Your task to perform on an android device: Show the shopping cart on ebay.com. Search for usb-b on ebay.com, select the first entry, add it to the cart, then select checkout. Image 0: 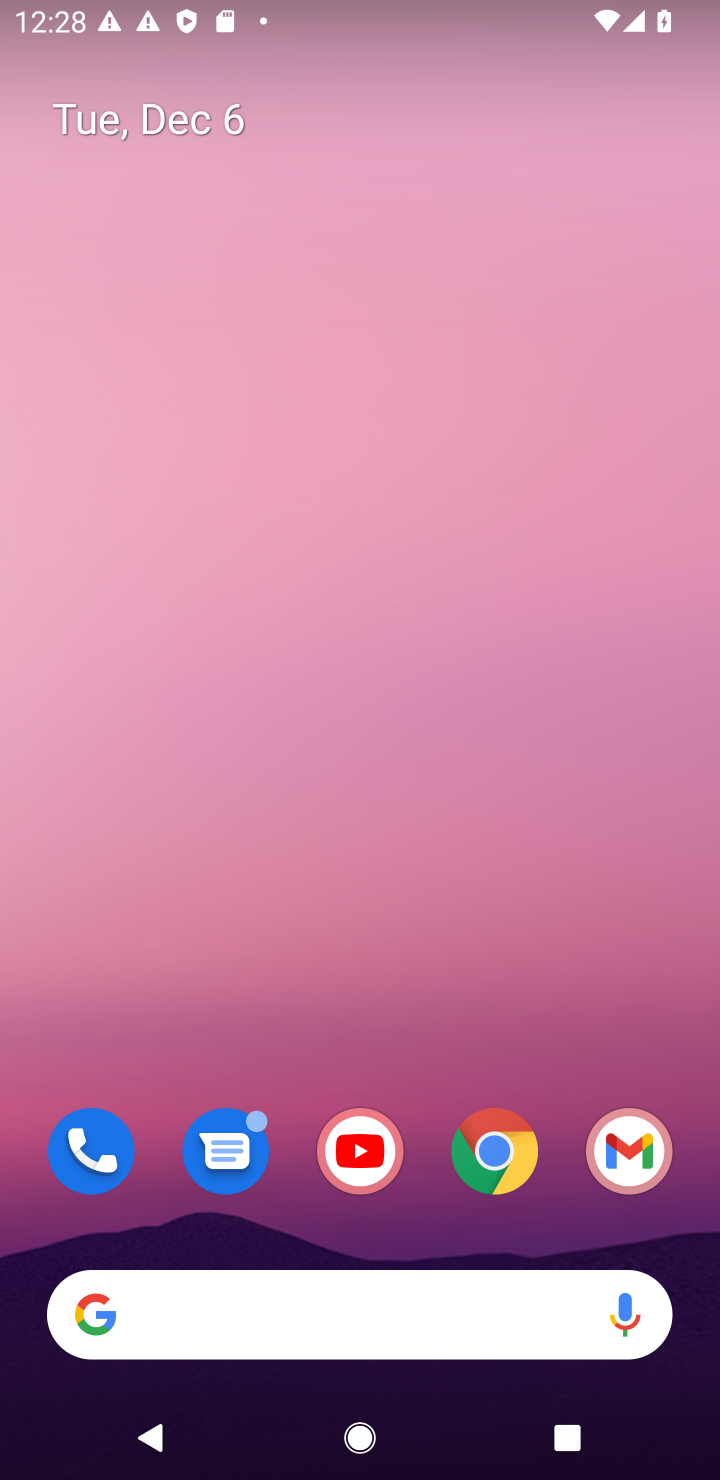
Step 0: click (494, 1162)
Your task to perform on an android device: Show the shopping cart on ebay.com. Search for usb-b on ebay.com, select the first entry, add it to the cart, then select checkout. Image 1: 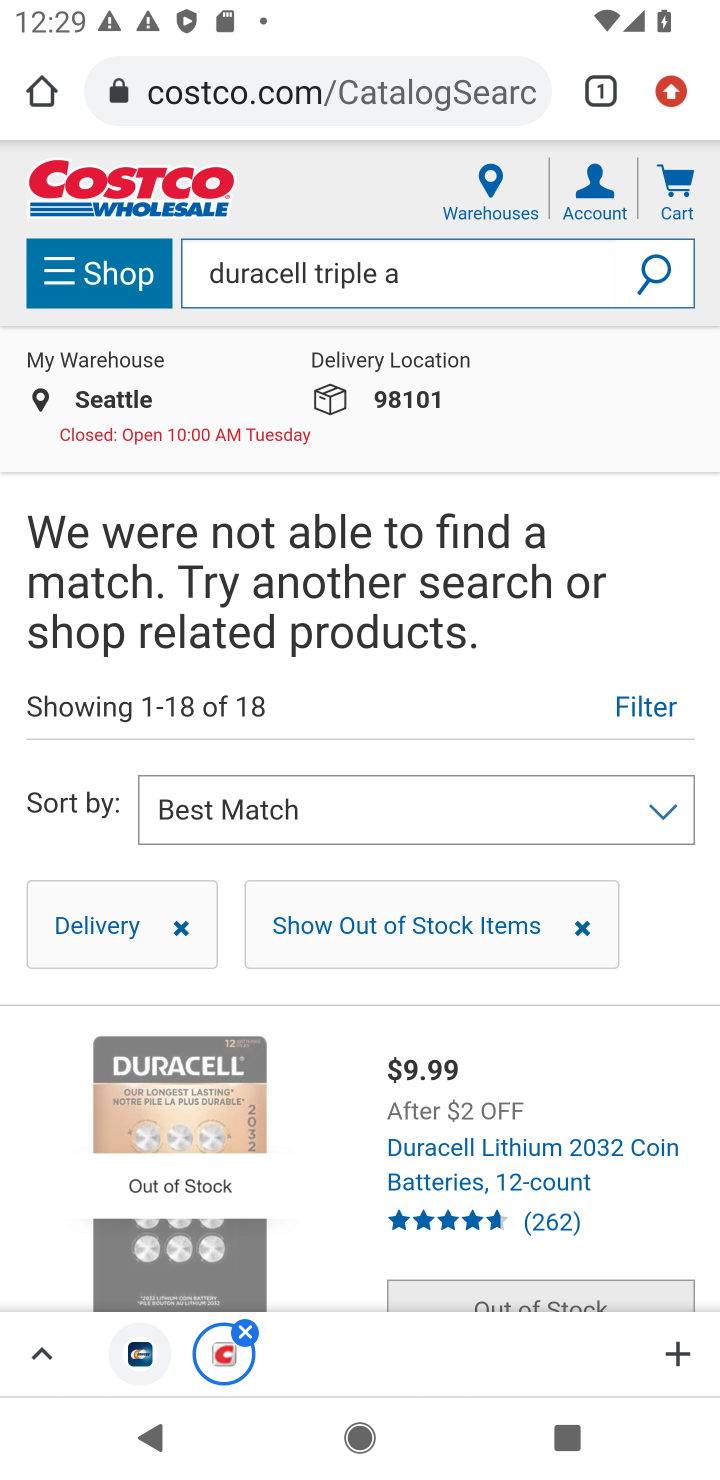
Step 1: click (256, 88)
Your task to perform on an android device: Show the shopping cart on ebay.com. Search for usb-b on ebay.com, select the first entry, add it to the cart, then select checkout. Image 2: 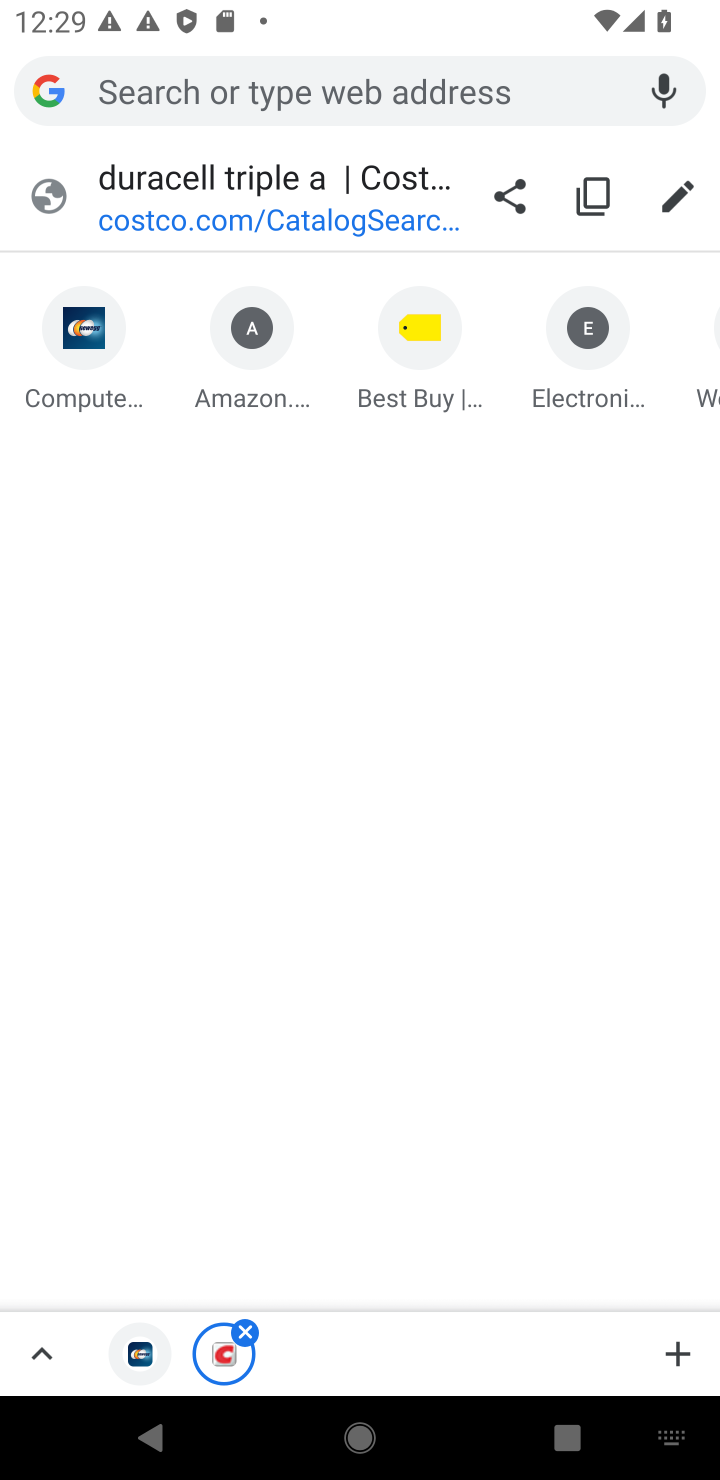
Step 2: type "ebay.com"
Your task to perform on an android device: Show the shopping cart on ebay.com. Search for usb-b on ebay.com, select the first entry, add it to the cart, then select checkout. Image 3: 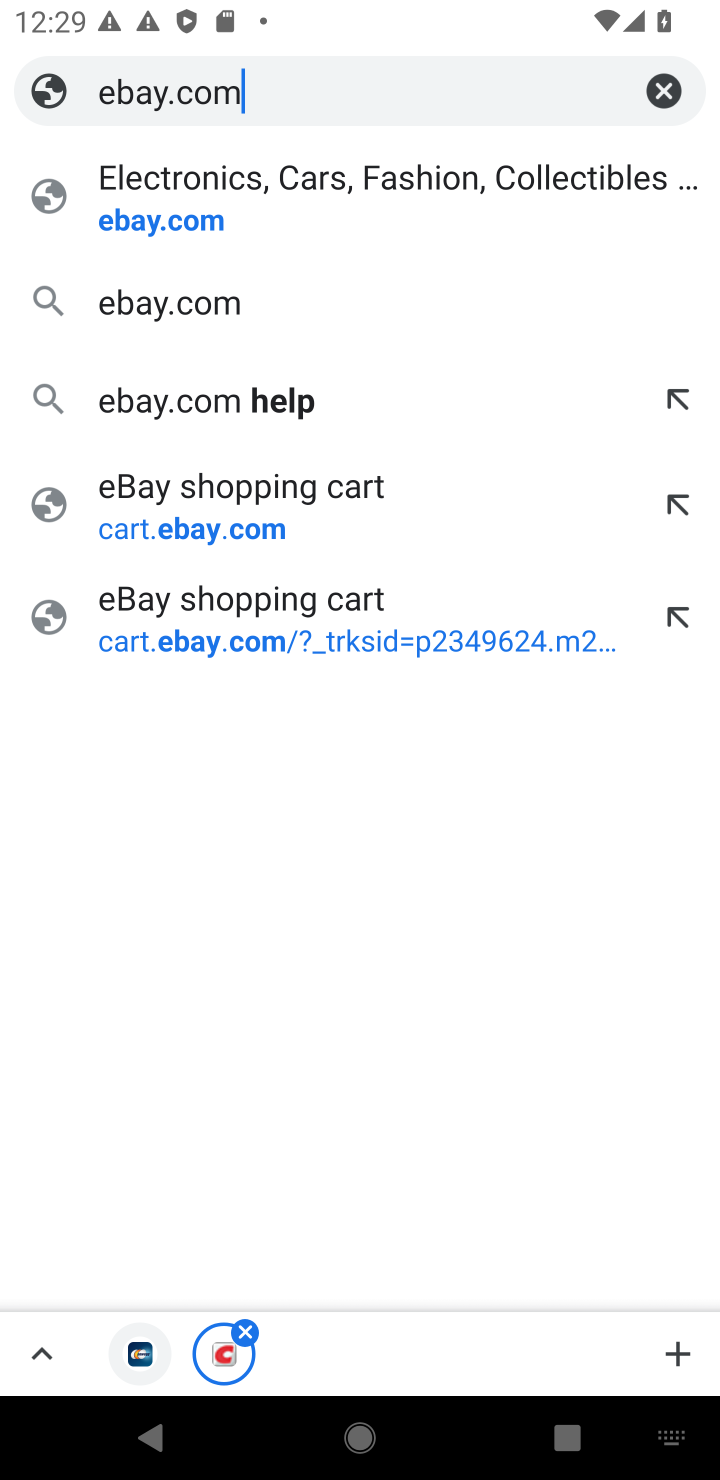
Step 3: click (161, 222)
Your task to perform on an android device: Show the shopping cart on ebay.com. Search for usb-b on ebay.com, select the first entry, add it to the cart, then select checkout. Image 4: 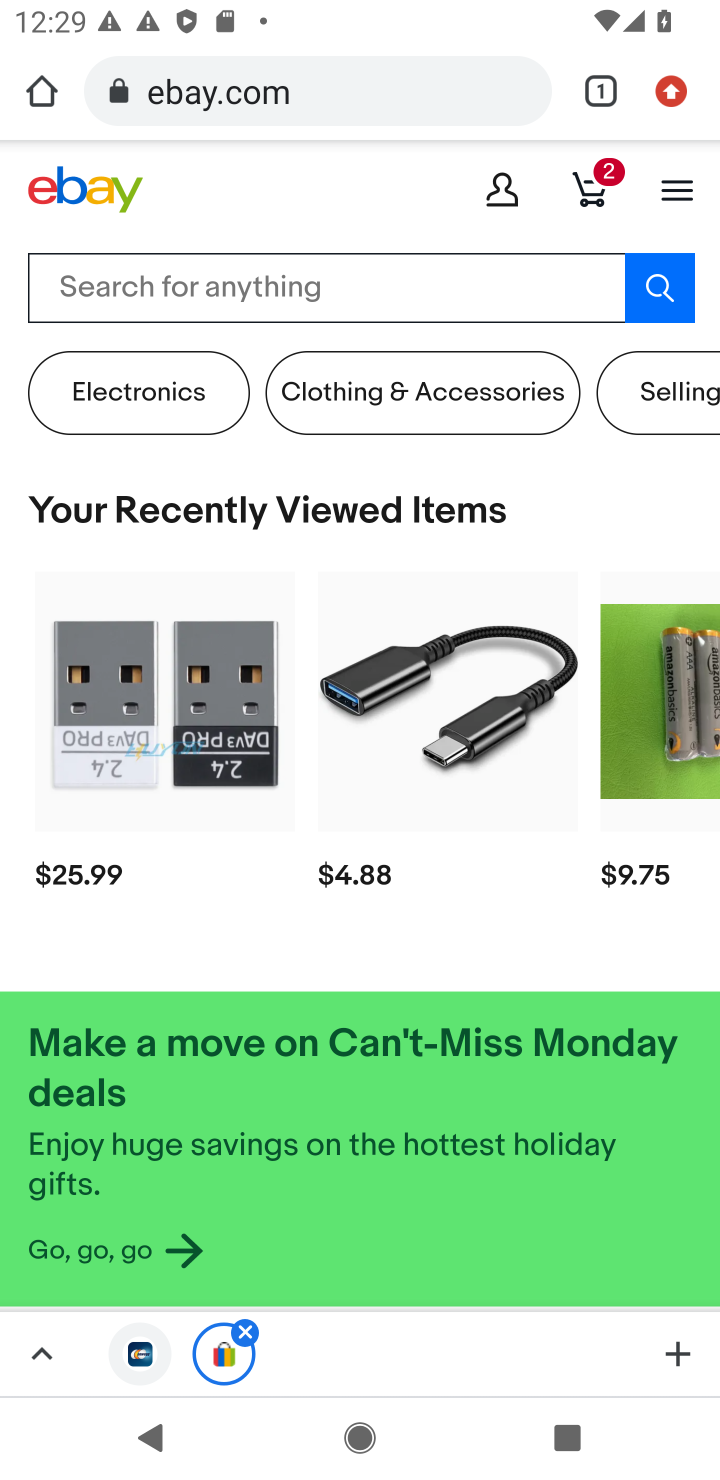
Step 4: click (589, 190)
Your task to perform on an android device: Show the shopping cart on ebay.com. Search for usb-b on ebay.com, select the first entry, add it to the cart, then select checkout. Image 5: 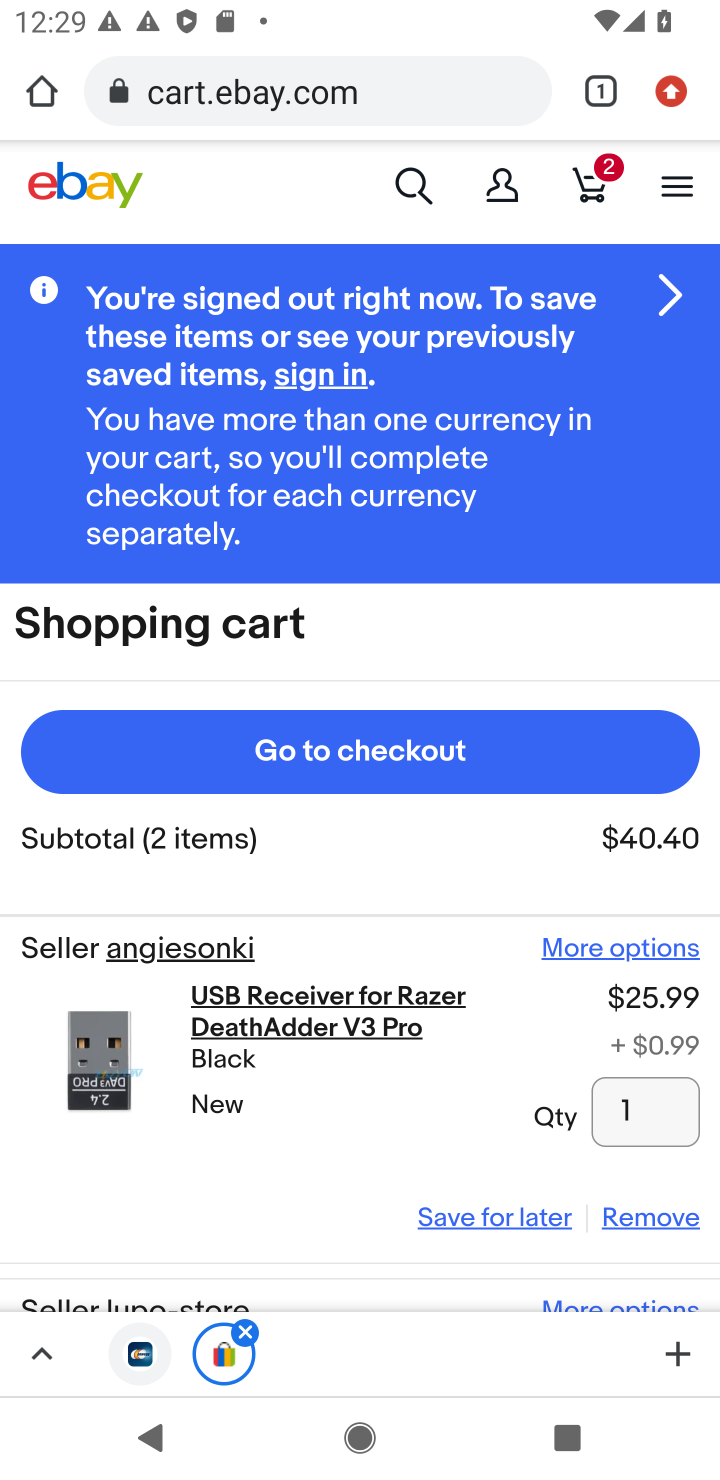
Step 5: drag from (427, 1015) to (431, 565)
Your task to perform on an android device: Show the shopping cart on ebay.com. Search for usb-b on ebay.com, select the first entry, add it to the cart, then select checkout. Image 6: 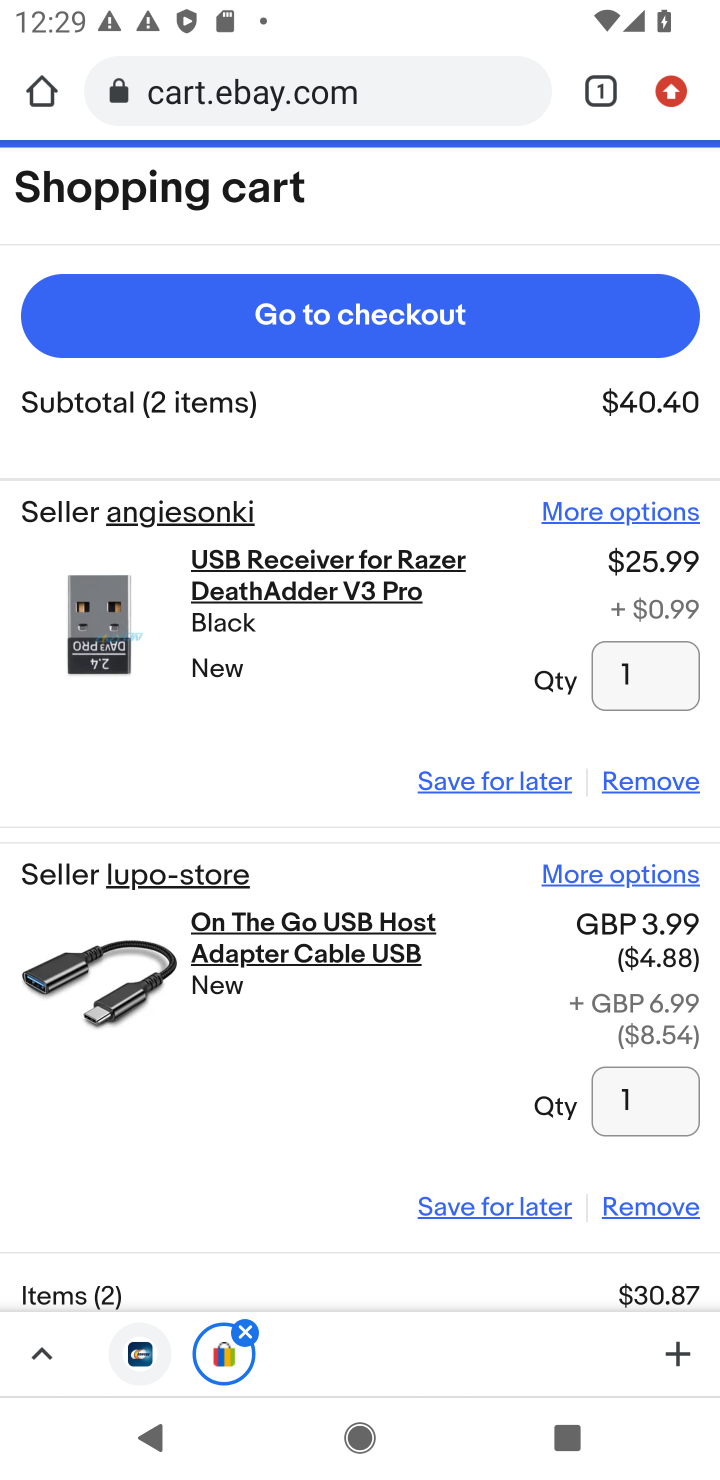
Step 6: drag from (296, 315) to (299, 745)
Your task to perform on an android device: Show the shopping cart on ebay.com. Search for usb-b on ebay.com, select the first entry, add it to the cart, then select checkout. Image 7: 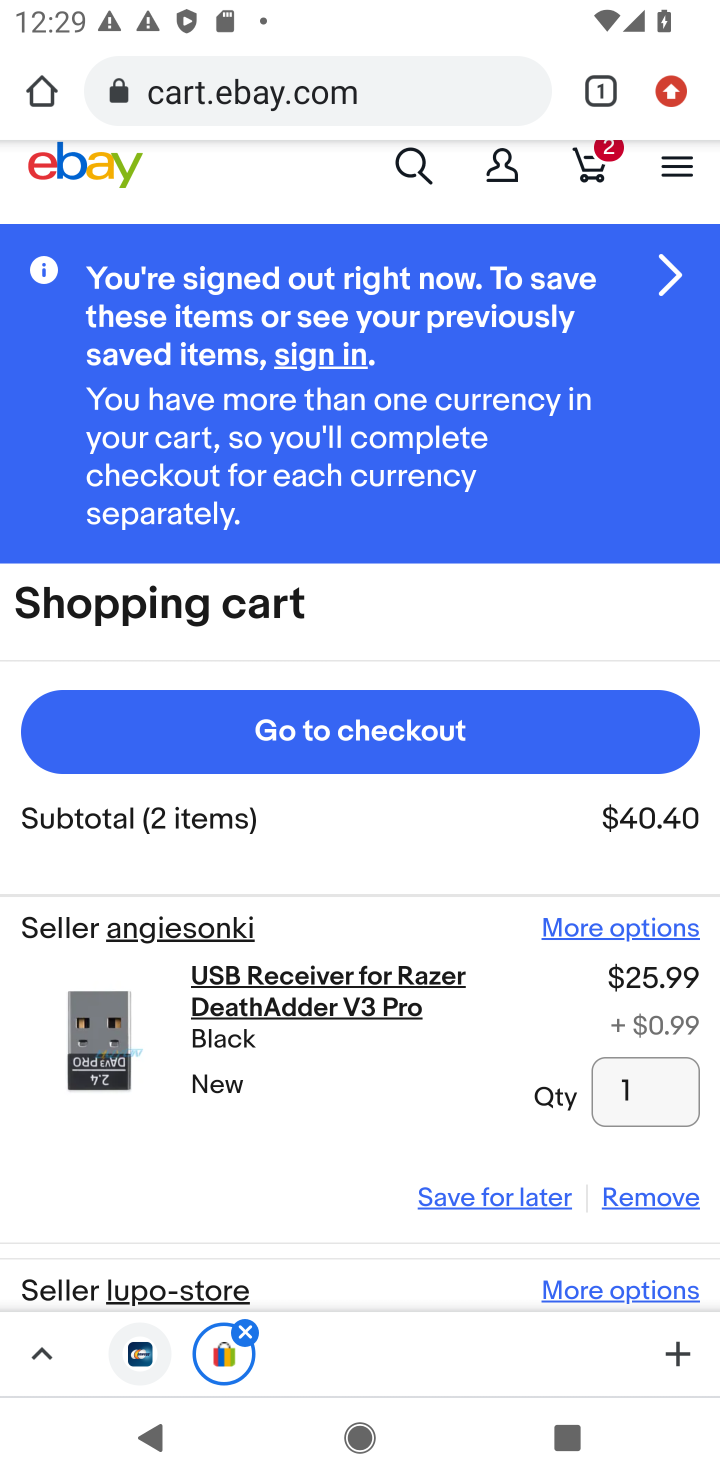
Step 7: click (402, 175)
Your task to perform on an android device: Show the shopping cart on ebay.com. Search for usb-b on ebay.com, select the first entry, add it to the cart, then select checkout. Image 8: 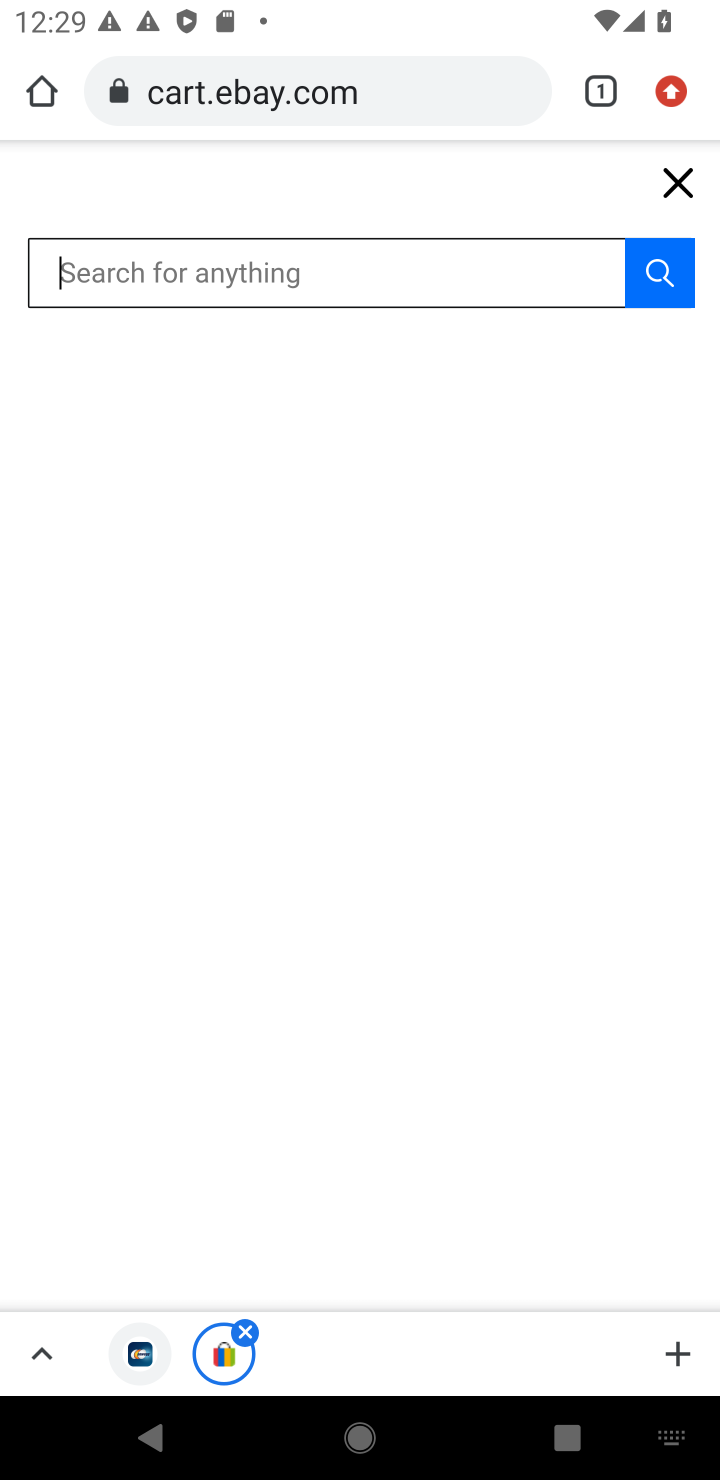
Step 8: type "usb-b"
Your task to perform on an android device: Show the shopping cart on ebay.com. Search for usb-b on ebay.com, select the first entry, add it to the cart, then select checkout. Image 9: 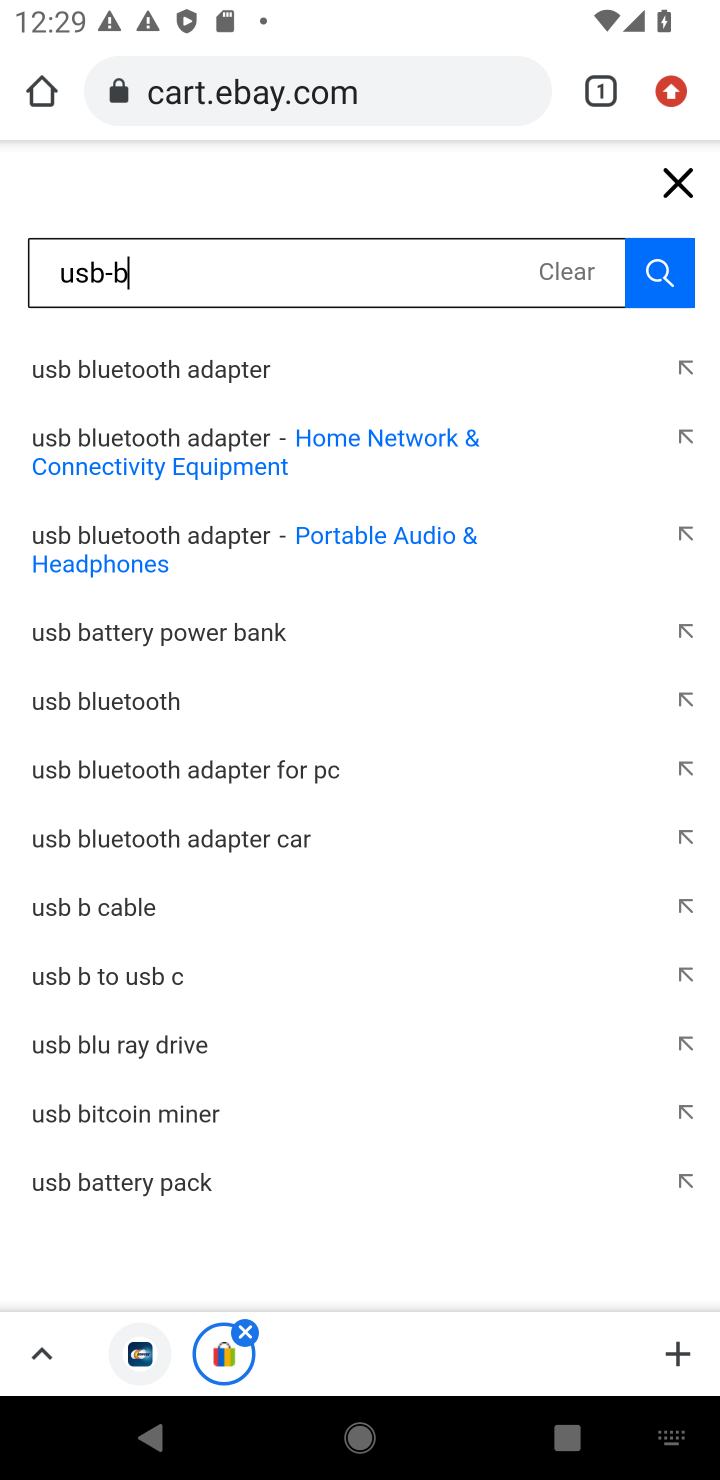
Step 9: click (663, 268)
Your task to perform on an android device: Show the shopping cart on ebay.com. Search for usb-b on ebay.com, select the first entry, add it to the cart, then select checkout. Image 10: 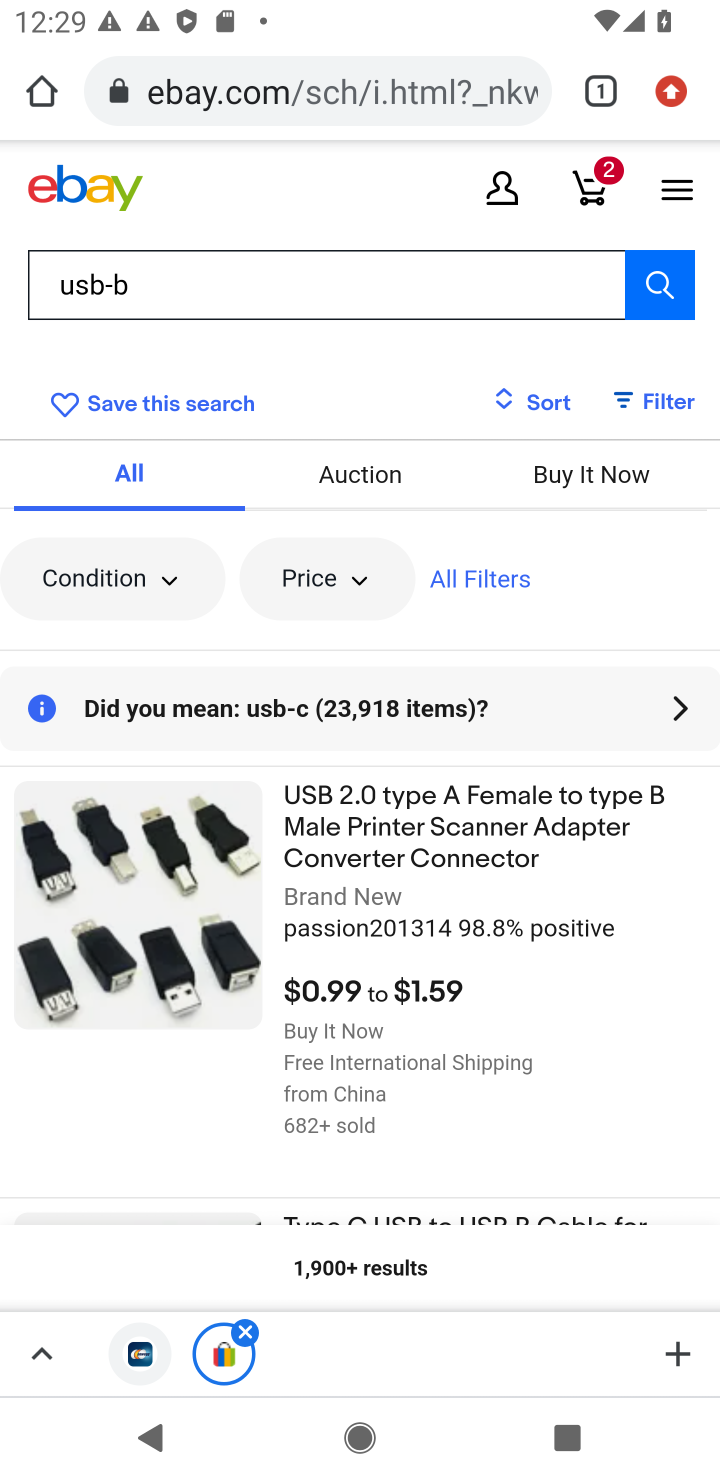
Step 10: click (341, 842)
Your task to perform on an android device: Show the shopping cart on ebay.com. Search for usb-b on ebay.com, select the first entry, add it to the cart, then select checkout. Image 11: 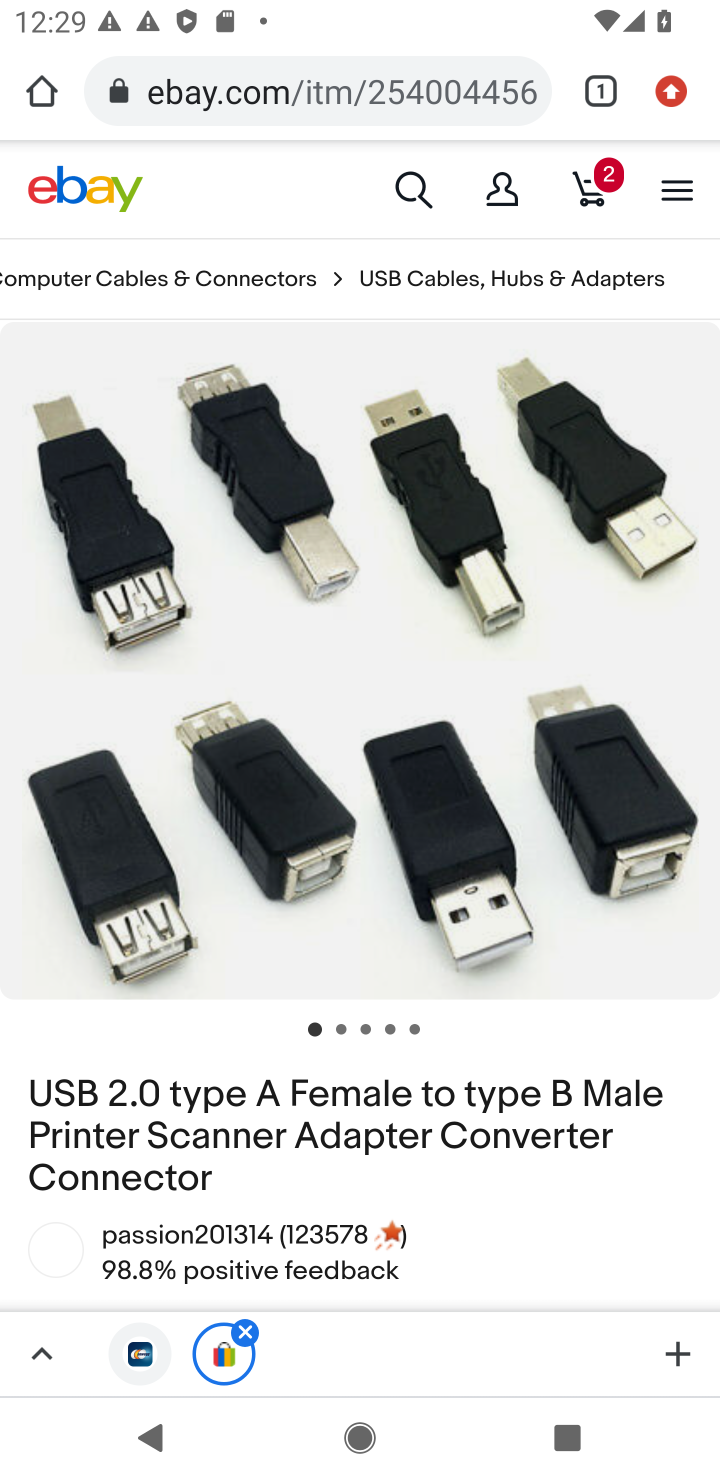
Step 11: drag from (344, 941) to (350, 528)
Your task to perform on an android device: Show the shopping cart on ebay.com. Search for usb-b on ebay.com, select the first entry, add it to the cart, then select checkout. Image 12: 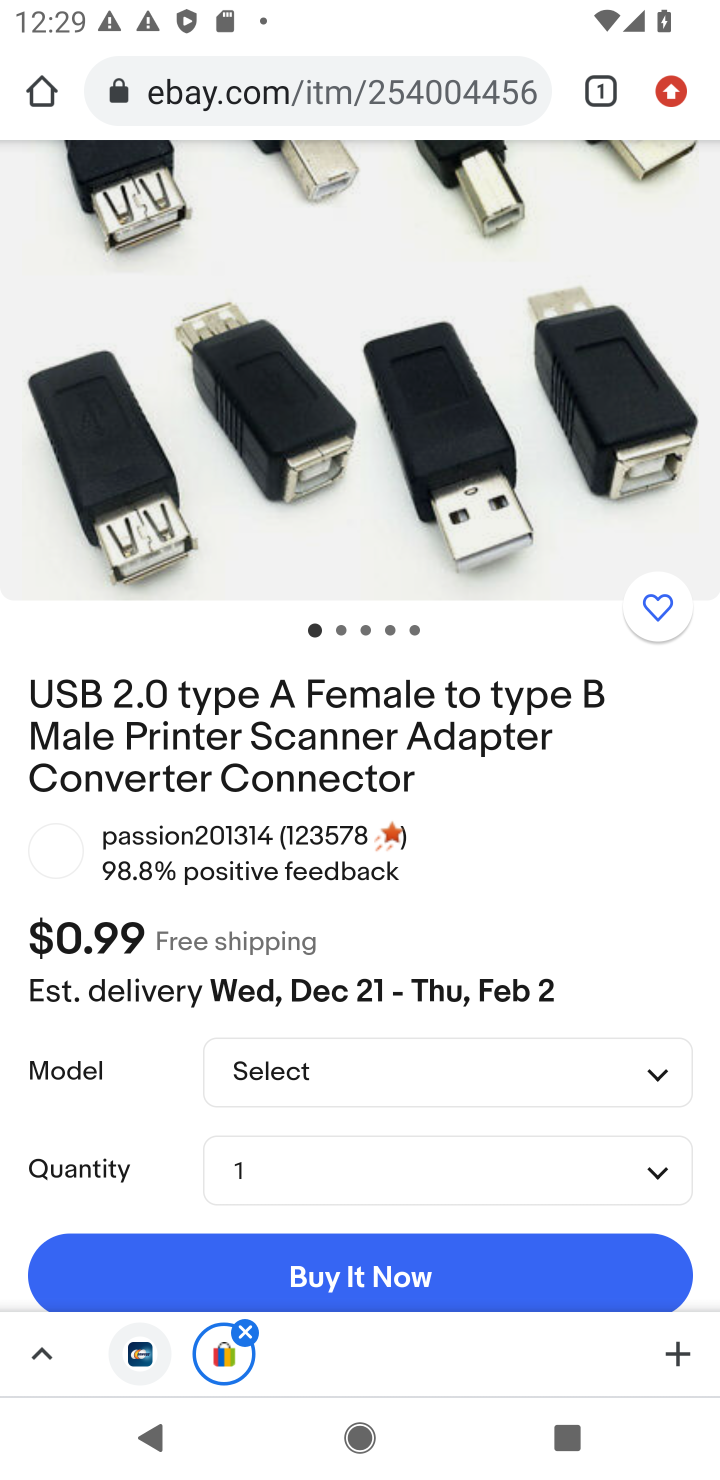
Step 12: drag from (355, 1128) to (404, 495)
Your task to perform on an android device: Show the shopping cart on ebay.com. Search for usb-b on ebay.com, select the first entry, add it to the cart, then select checkout. Image 13: 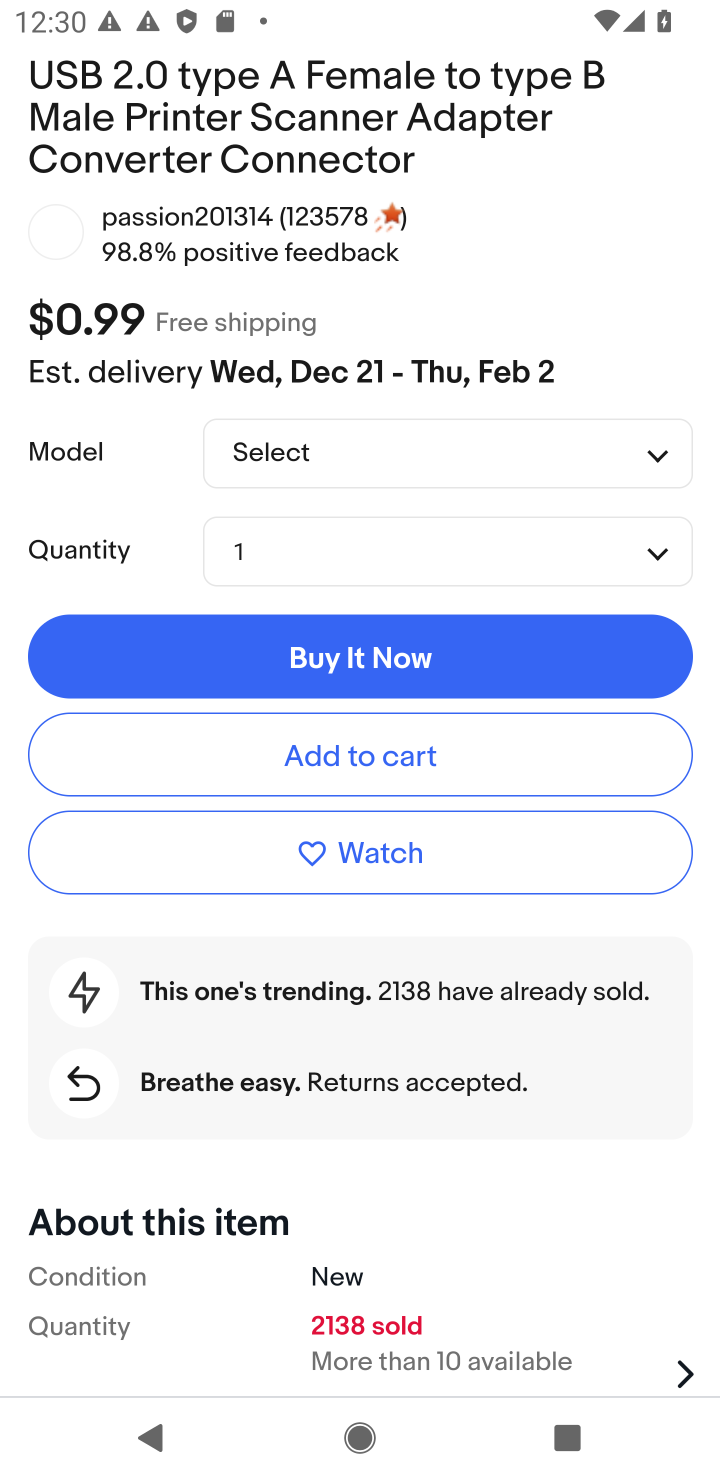
Step 13: click (364, 761)
Your task to perform on an android device: Show the shopping cart on ebay.com. Search for usb-b on ebay.com, select the first entry, add it to the cart, then select checkout. Image 14: 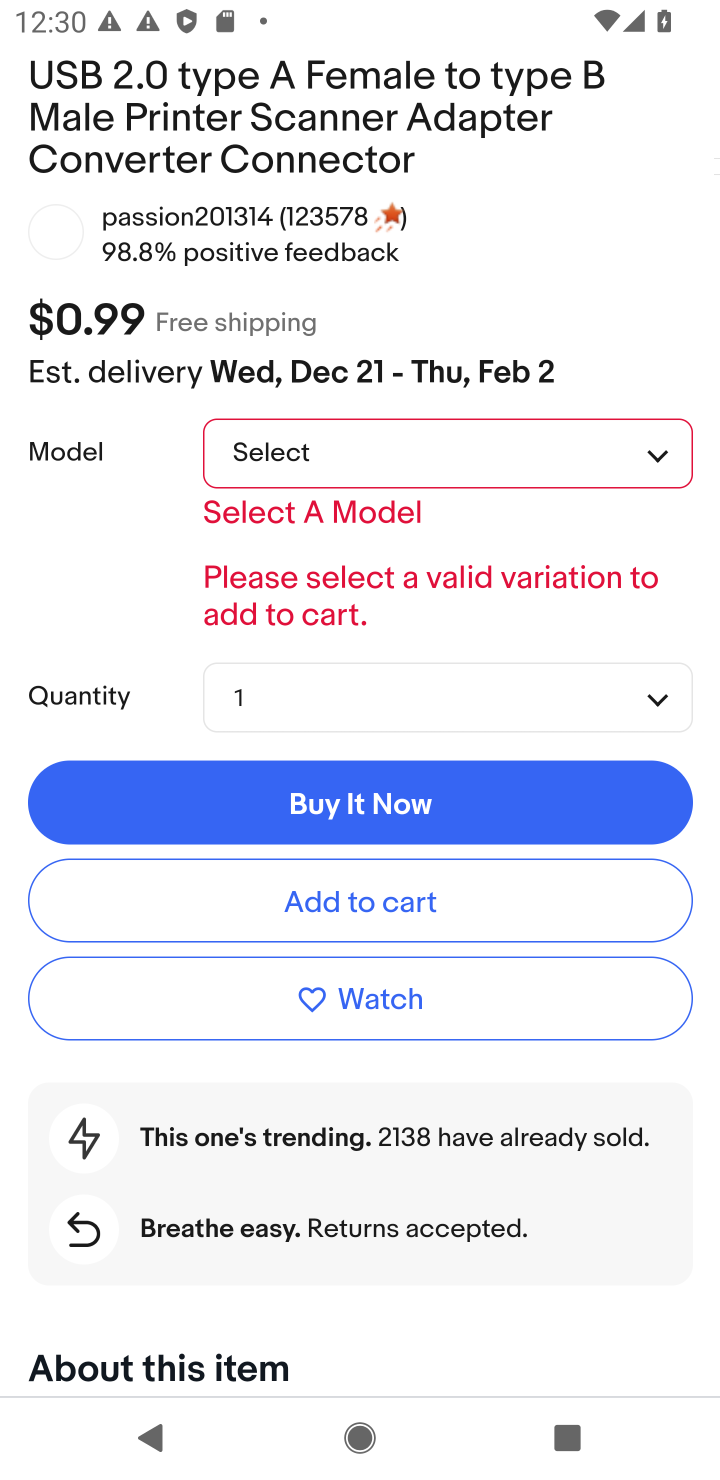
Step 14: click (647, 465)
Your task to perform on an android device: Show the shopping cart on ebay.com. Search for usb-b on ebay.com, select the first entry, add it to the cart, then select checkout. Image 15: 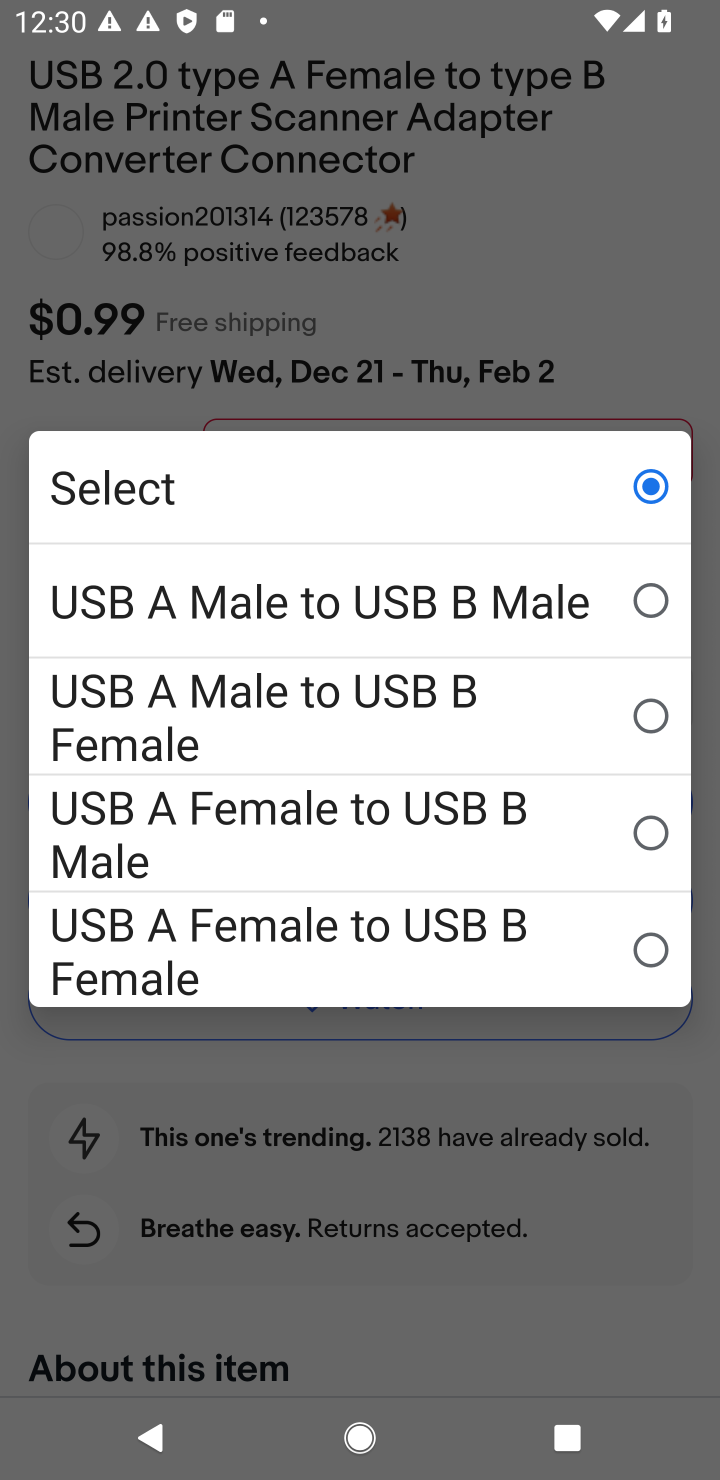
Step 15: click (260, 616)
Your task to perform on an android device: Show the shopping cart on ebay.com. Search for usb-b on ebay.com, select the first entry, add it to the cart, then select checkout. Image 16: 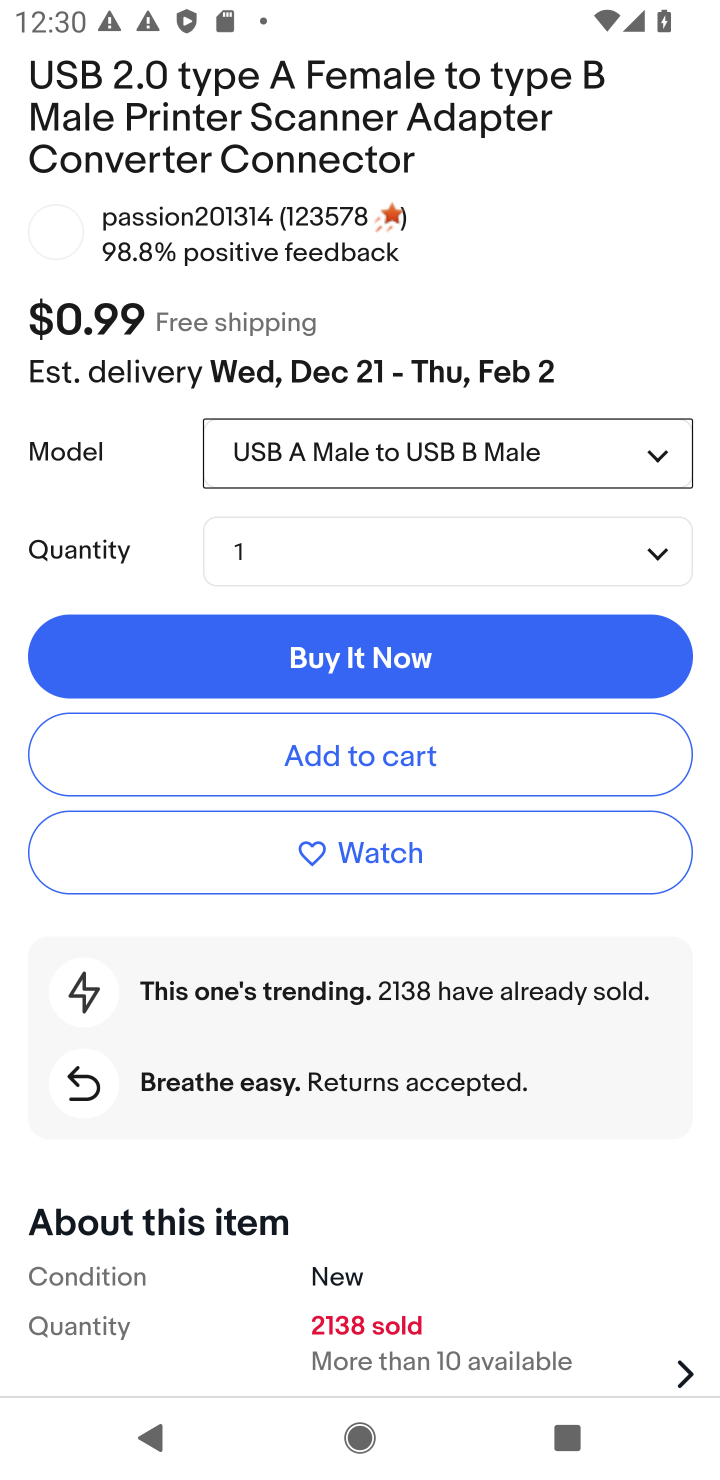
Step 16: click (377, 765)
Your task to perform on an android device: Show the shopping cart on ebay.com. Search for usb-b on ebay.com, select the first entry, add it to the cart, then select checkout. Image 17: 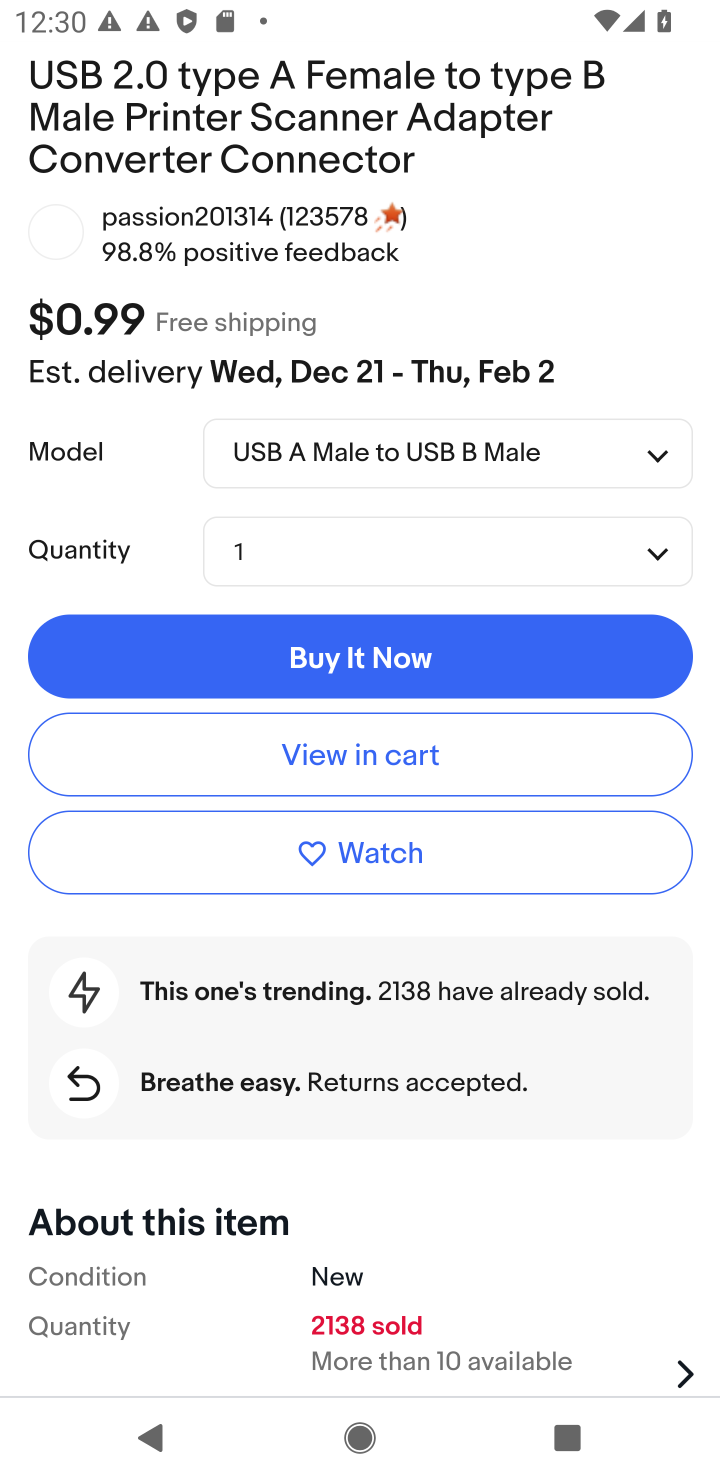
Step 17: click (377, 764)
Your task to perform on an android device: Show the shopping cart on ebay.com. Search for usb-b on ebay.com, select the first entry, add it to the cart, then select checkout. Image 18: 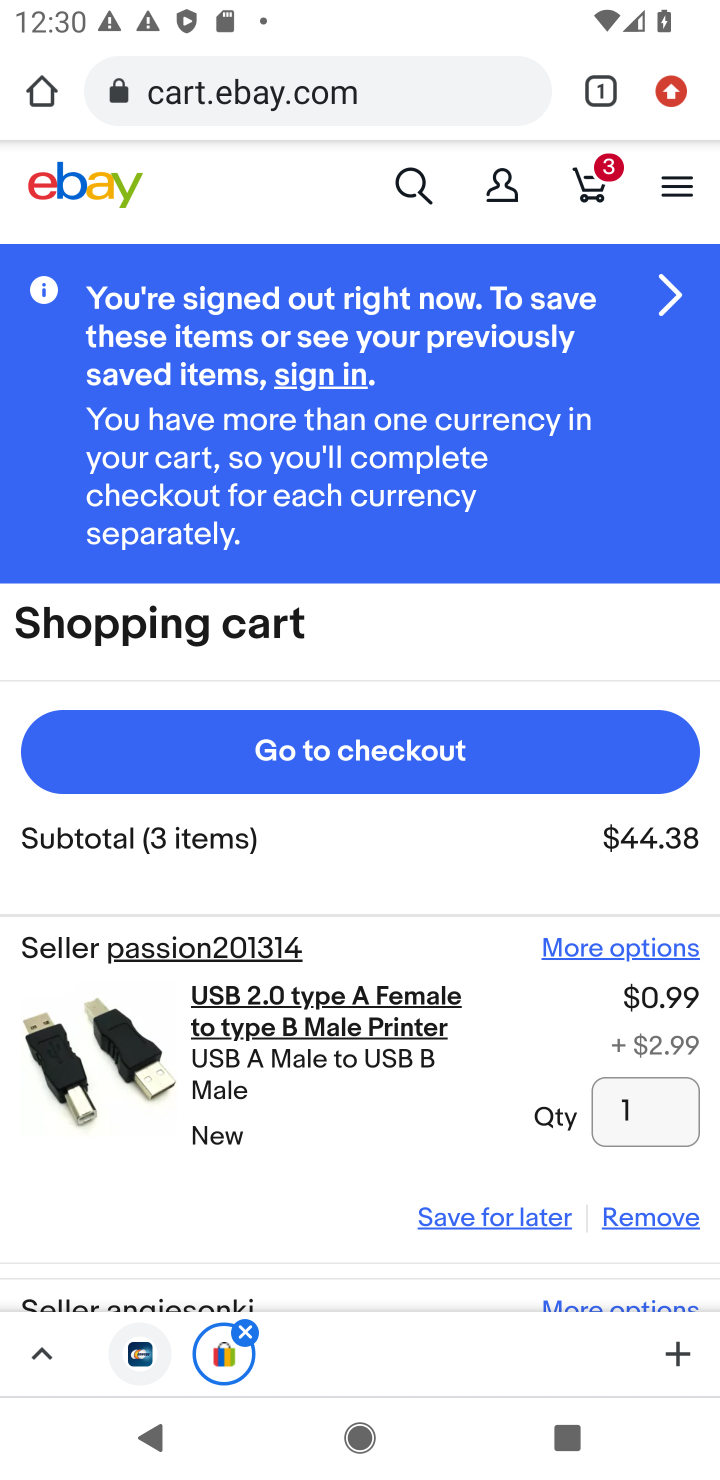
Step 18: click (388, 747)
Your task to perform on an android device: Show the shopping cart on ebay.com. Search for usb-b on ebay.com, select the first entry, add it to the cart, then select checkout. Image 19: 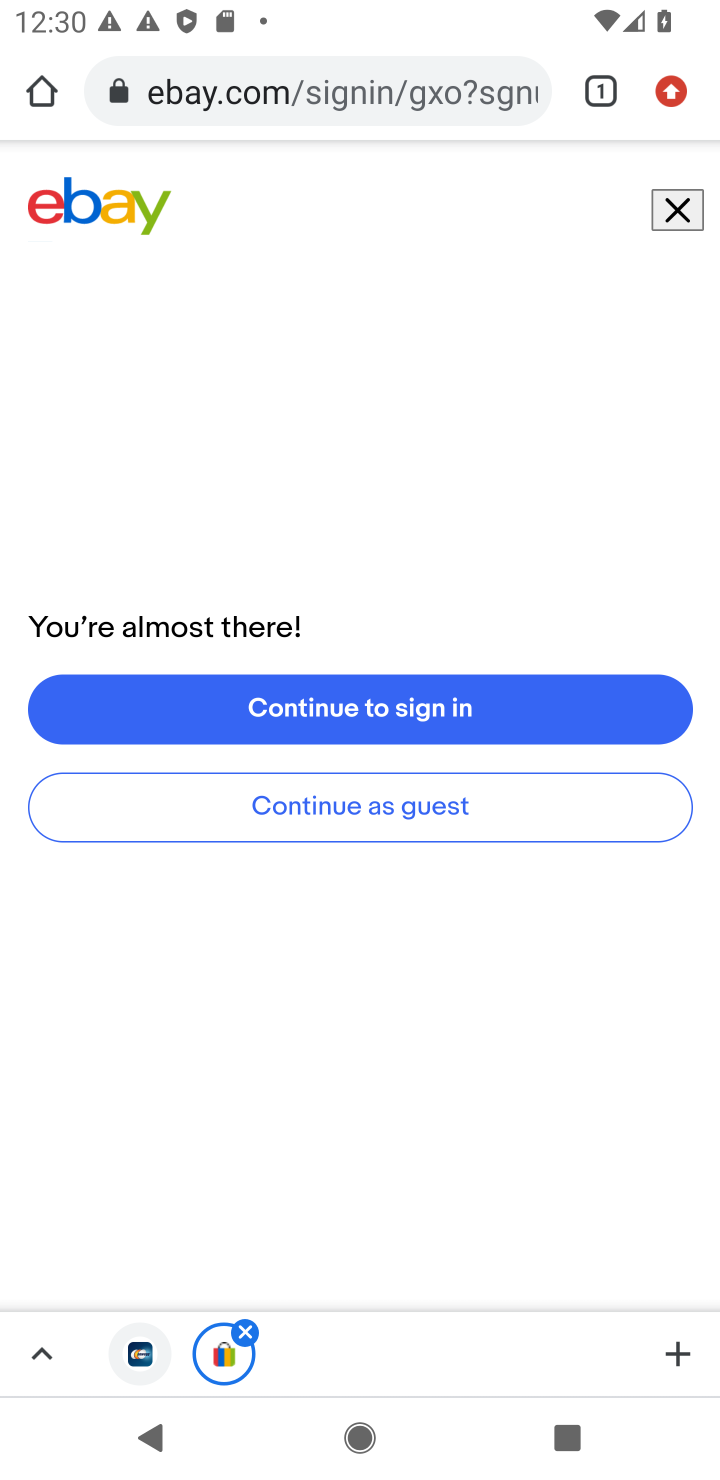
Step 19: task complete